Your task to perform on an android device: Go to eBay Image 0: 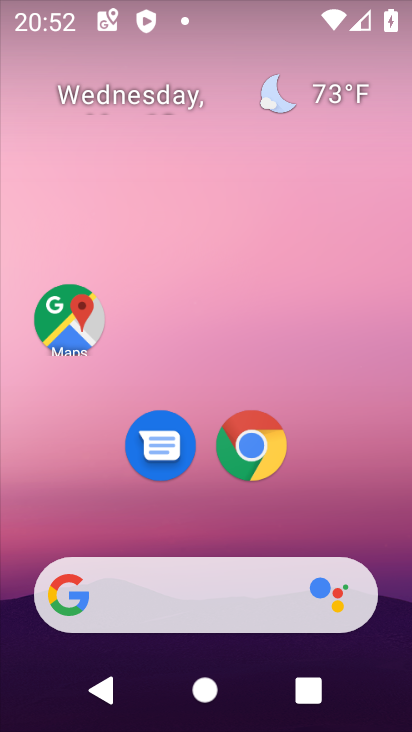
Step 0: click (245, 425)
Your task to perform on an android device: Go to eBay Image 1: 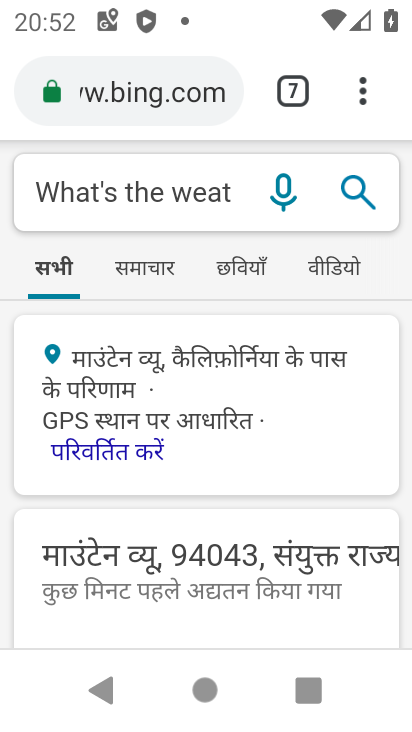
Step 1: click (355, 90)
Your task to perform on an android device: Go to eBay Image 2: 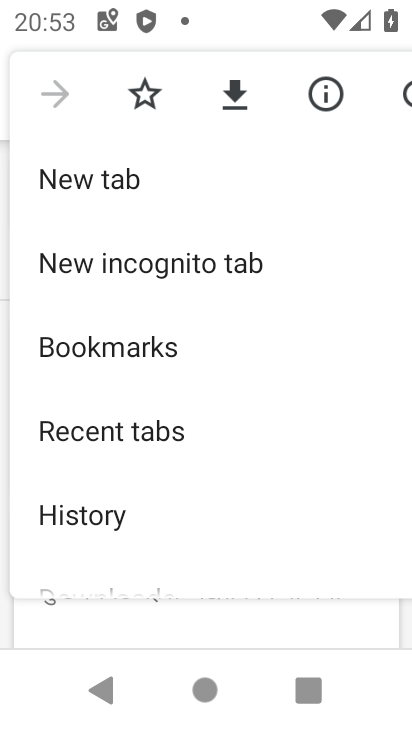
Step 2: click (103, 169)
Your task to perform on an android device: Go to eBay Image 3: 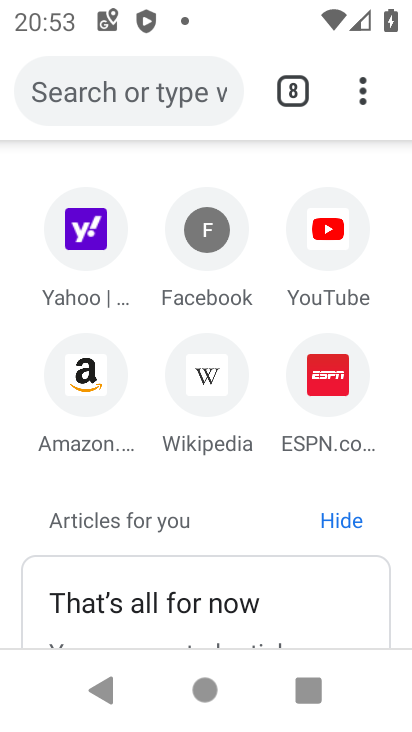
Step 3: click (91, 71)
Your task to perform on an android device: Go to eBay Image 4: 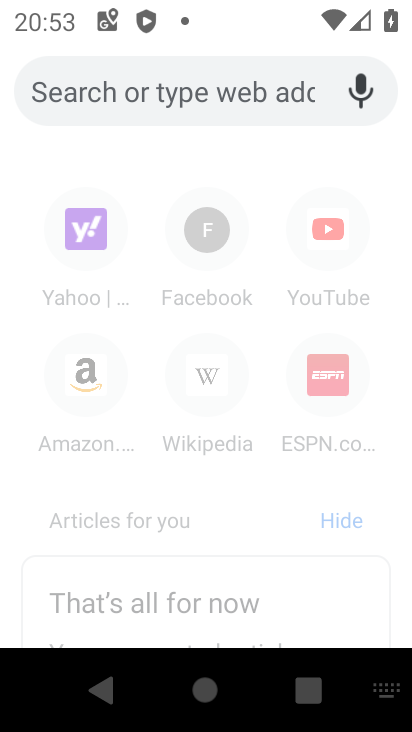
Step 4: type " eBay"
Your task to perform on an android device: Go to eBay Image 5: 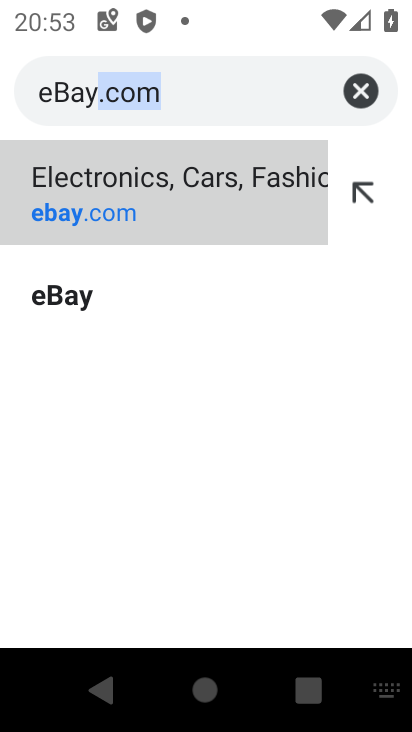
Step 5: click (79, 284)
Your task to perform on an android device: Go to eBay Image 6: 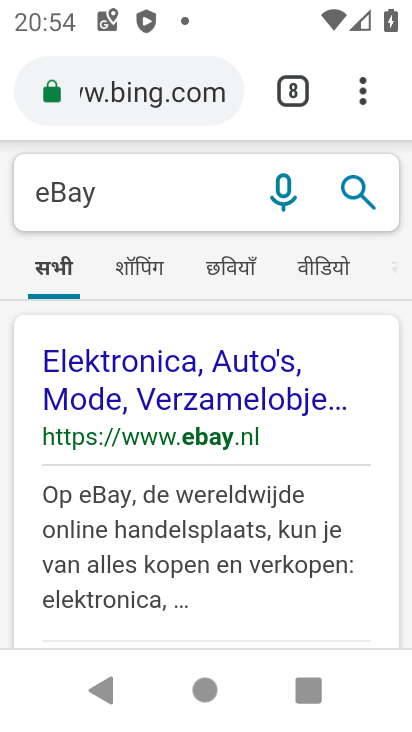
Step 6: task complete